Your task to perform on an android device: check data usage Image 0: 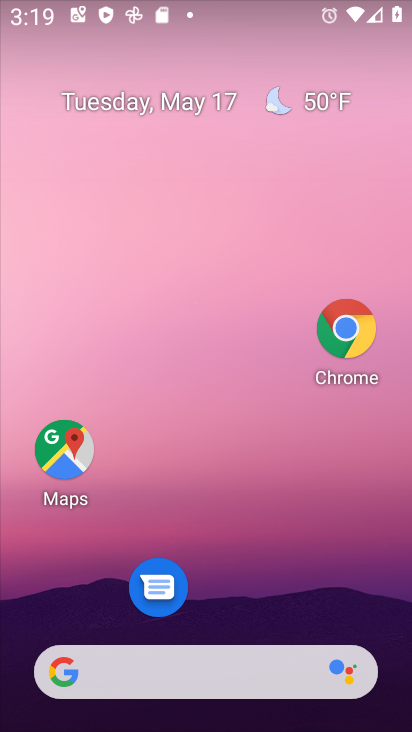
Step 0: drag from (288, 613) to (264, 122)
Your task to perform on an android device: check data usage Image 1: 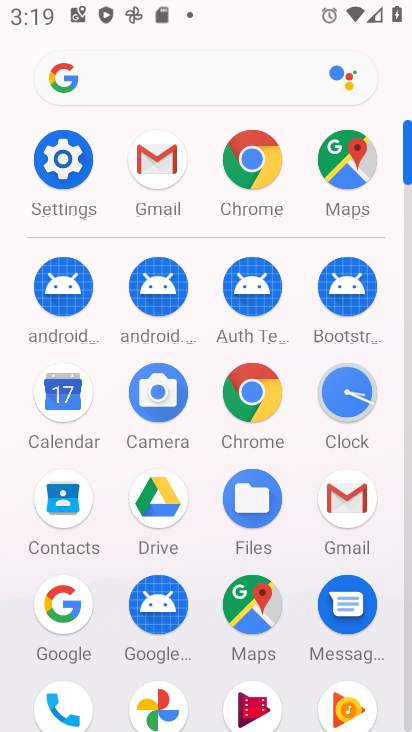
Step 1: click (63, 170)
Your task to perform on an android device: check data usage Image 2: 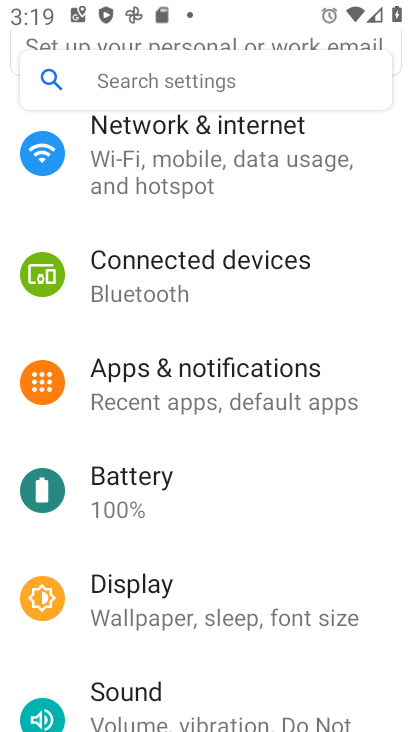
Step 2: click (141, 170)
Your task to perform on an android device: check data usage Image 3: 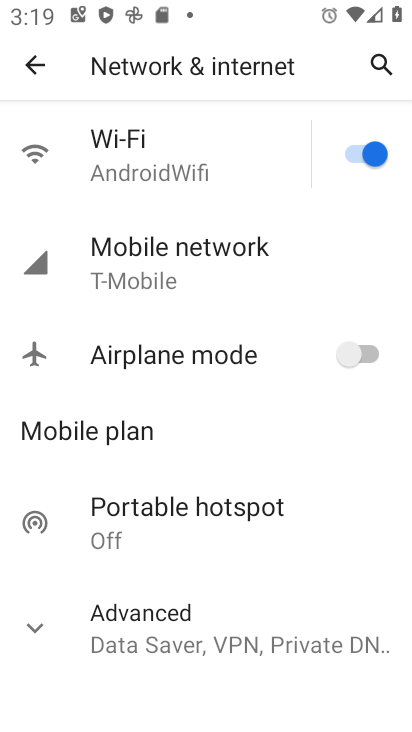
Step 3: click (154, 260)
Your task to perform on an android device: check data usage Image 4: 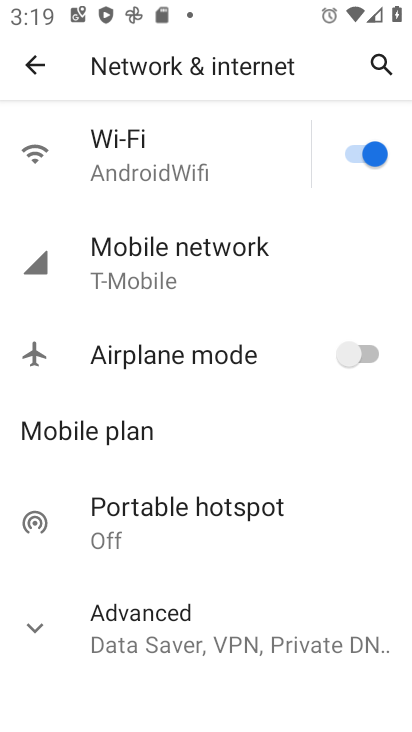
Step 4: task complete